Your task to perform on an android device: turn off javascript in the chrome app Image 0: 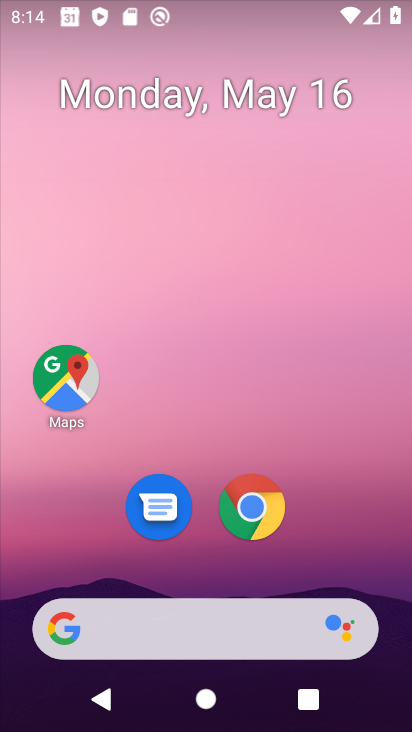
Step 0: click (256, 491)
Your task to perform on an android device: turn off javascript in the chrome app Image 1: 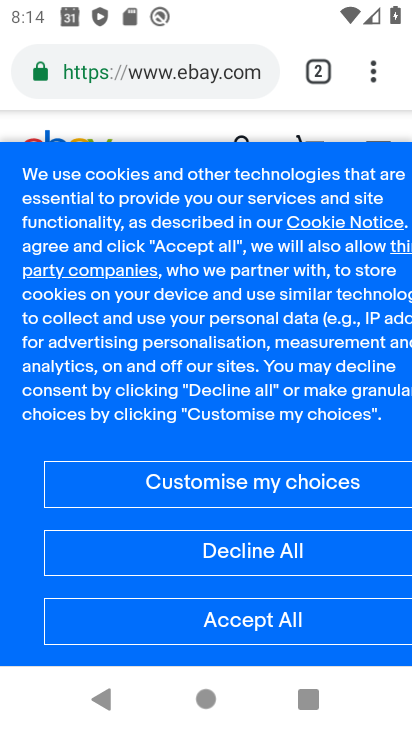
Step 1: click (369, 69)
Your task to perform on an android device: turn off javascript in the chrome app Image 2: 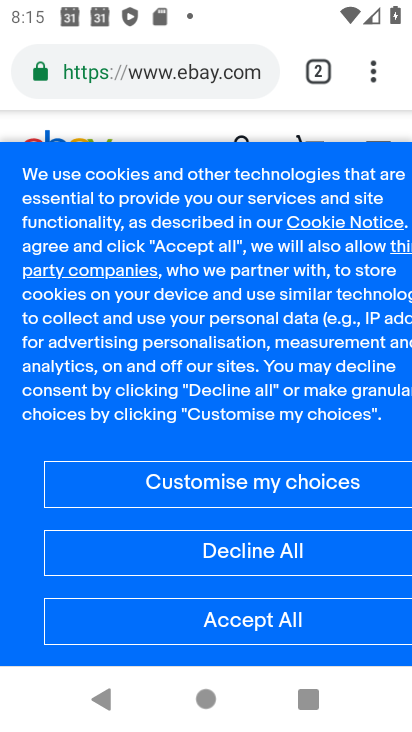
Step 2: click (368, 75)
Your task to perform on an android device: turn off javascript in the chrome app Image 3: 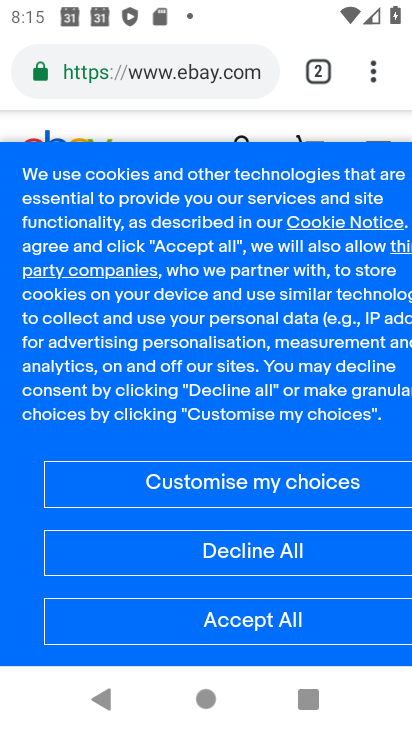
Step 3: drag from (367, 65) to (119, 501)
Your task to perform on an android device: turn off javascript in the chrome app Image 4: 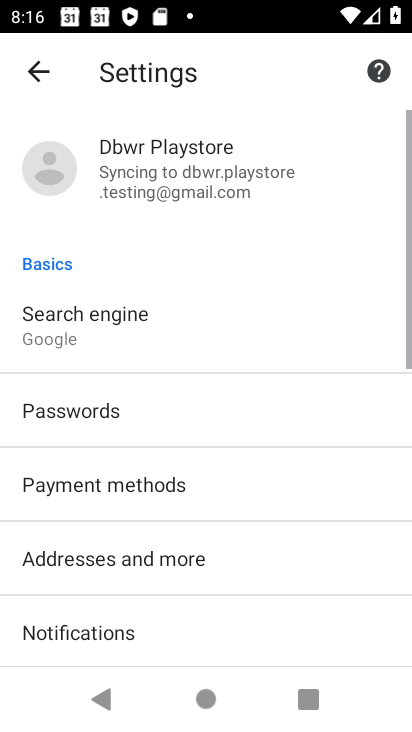
Step 4: click (119, 501)
Your task to perform on an android device: turn off javascript in the chrome app Image 5: 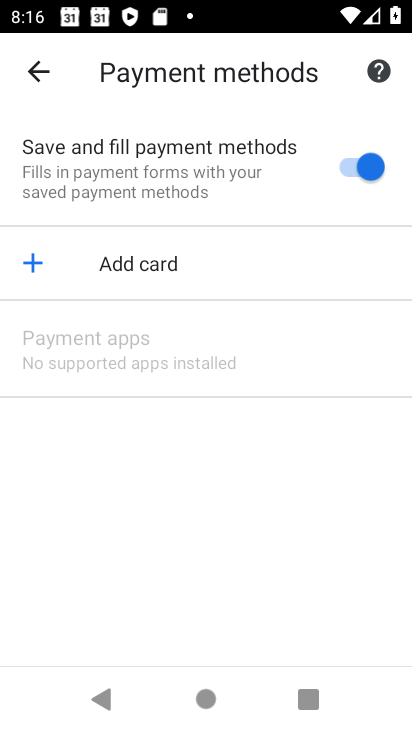
Step 5: drag from (352, 593) to (344, 547)
Your task to perform on an android device: turn off javascript in the chrome app Image 6: 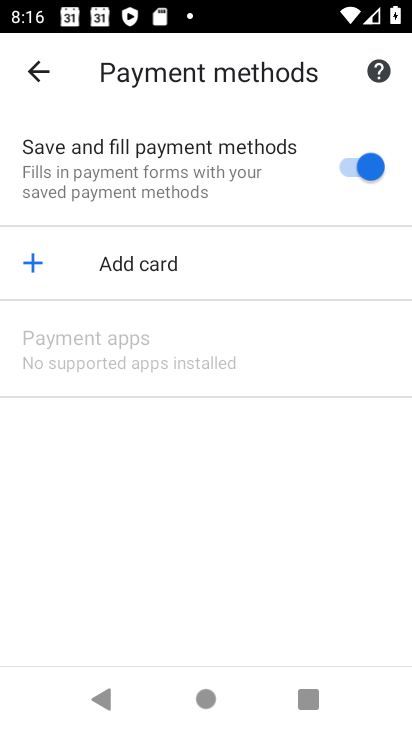
Step 6: click (40, 66)
Your task to perform on an android device: turn off javascript in the chrome app Image 7: 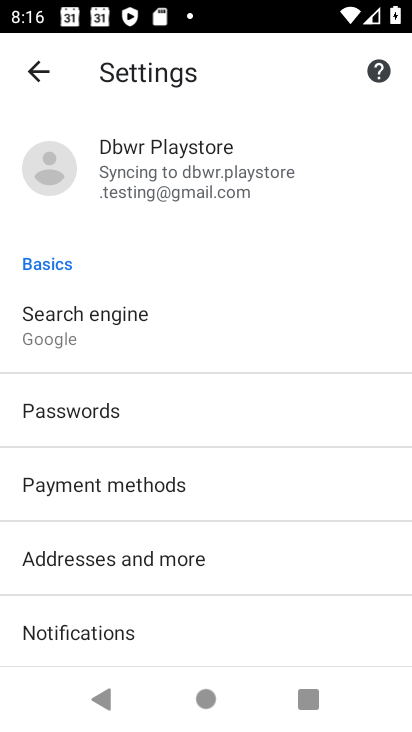
Step 7: drag from (330, 421) to (353, 288)
Your task to perform on an android device: turn off javascript in the chrome app Image 8: 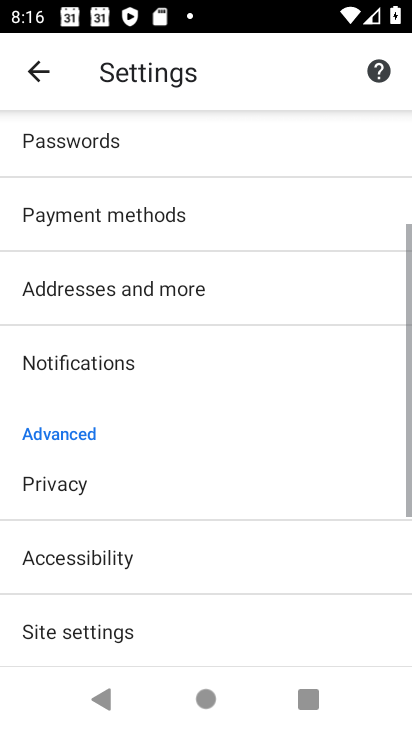
Step 8: drag from (253, 593) to (384, 294)
Your task to perform on an android device: turn off javascript in the chrome app Image 9: 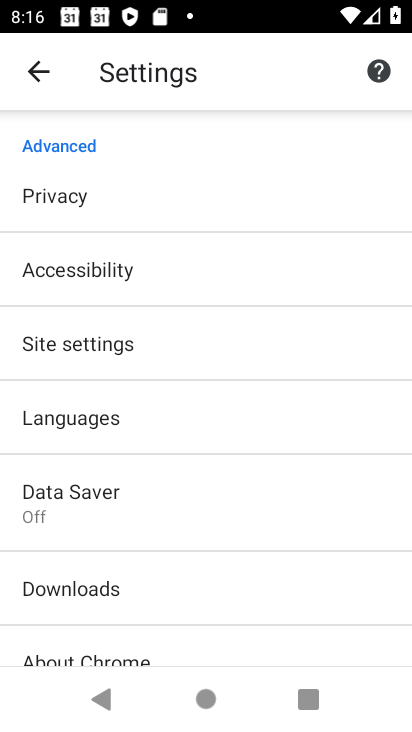
Step 9: click (121, 337)
Your task to perform on an android device: turn off javascript in the chrome app Image 10: 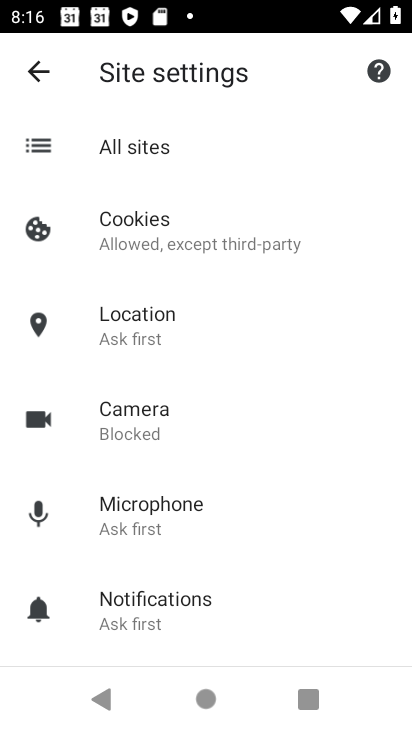
Step 10: drag from (177, 510) to (241, 133)
Your task to perform on an android device: turn off javascript in the chrome app Image 11: 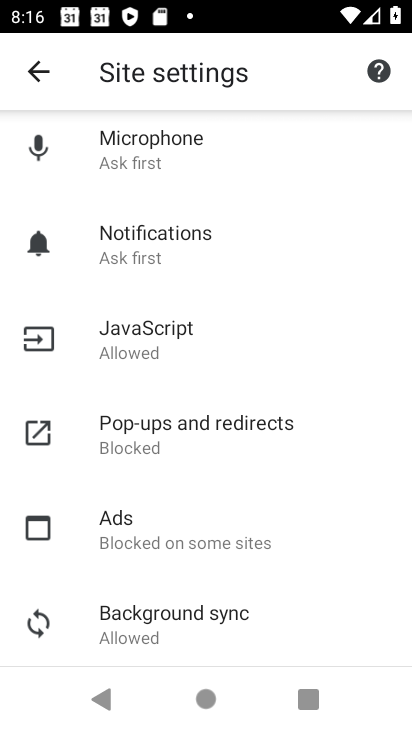
Step 11: click (165, 324)
Your task to perform on an android device: turn off javascript in the chrome app Image 12: 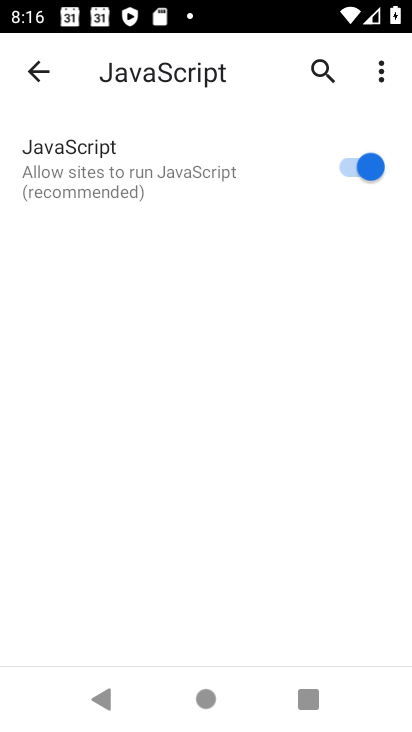
Step 12: click (345, 164)
Your task to perform on an android device: turn off javascript in the chrome app Image 13: 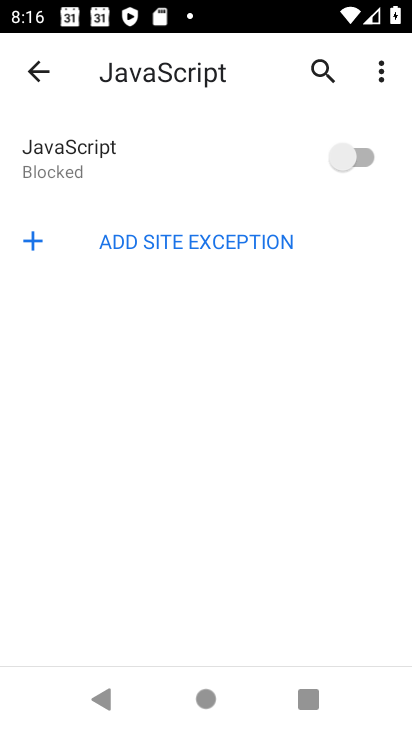
Step 13: task complete